Your task to perform on an android device: Open Google Image 0: 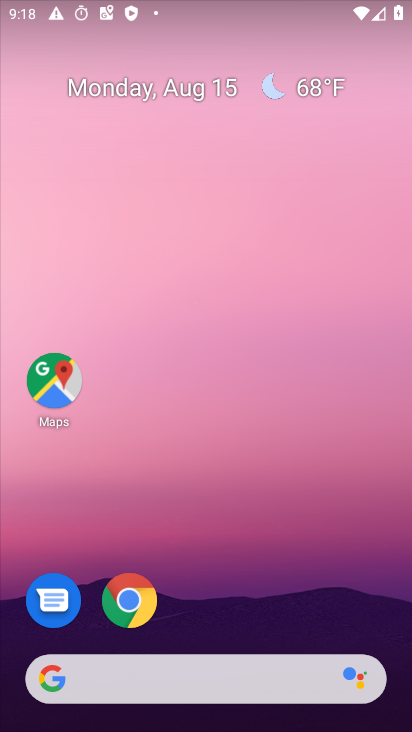
Step 0: drag from (225, 649) to (193, 99)
Your task to perform on an android device: Open Google Image 1: 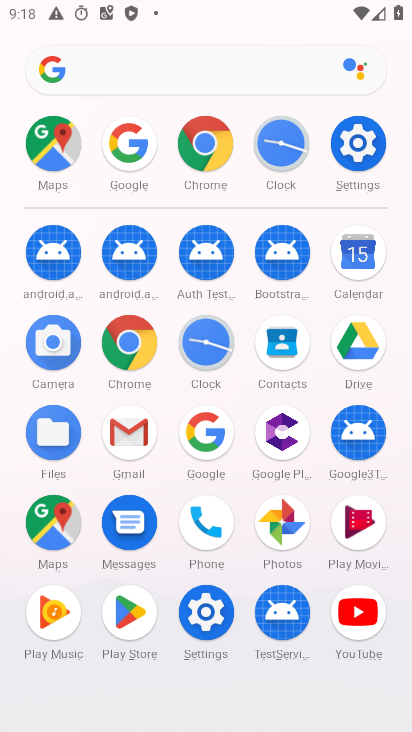
Step 1: click (203, 426)
Your task to perform on an android device: Open Google Image 2: 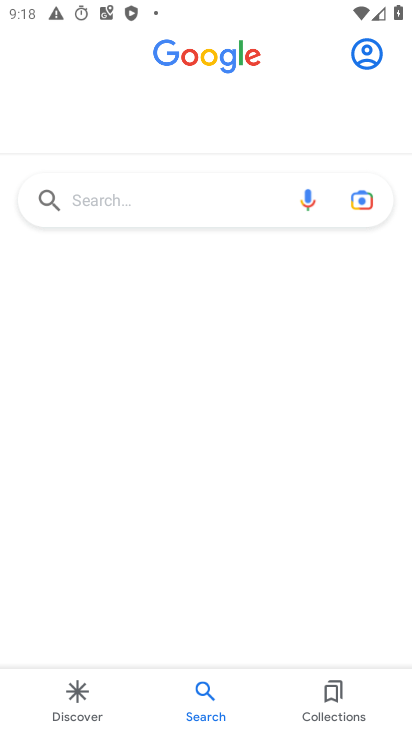
Step 2: task complete